Your task to perform on an android device: change the clock display to digital Image 0: 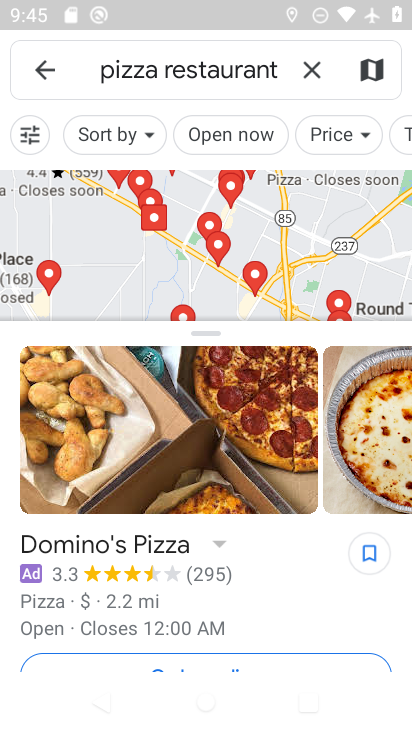
Step 0: press home button
Your task to perform on an android device: change the clock display to digital Image 1: 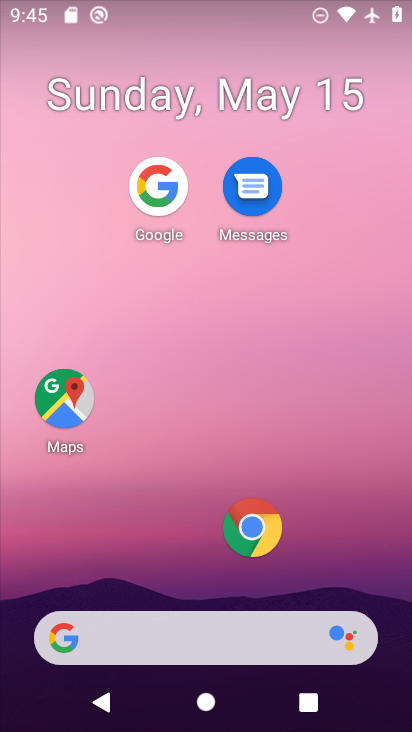
Step 1: drag from (207, 636) to (318, 217)
Your task to perform on an android device: change the clock display to digital Image 2: 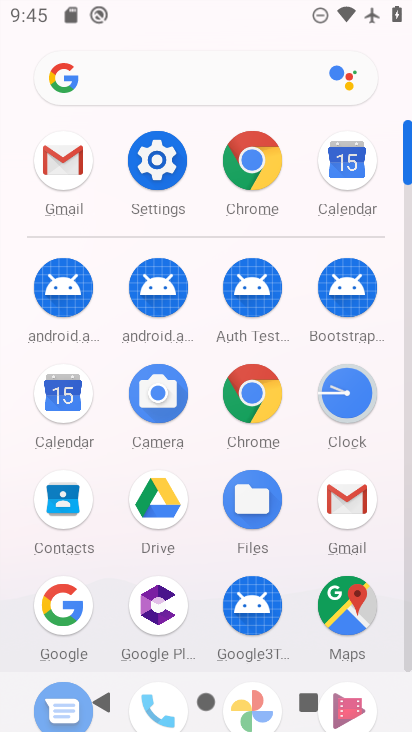
Step 2: click (344, 406)
Your task to perform on an android device: change the clock display to digital Image 3: 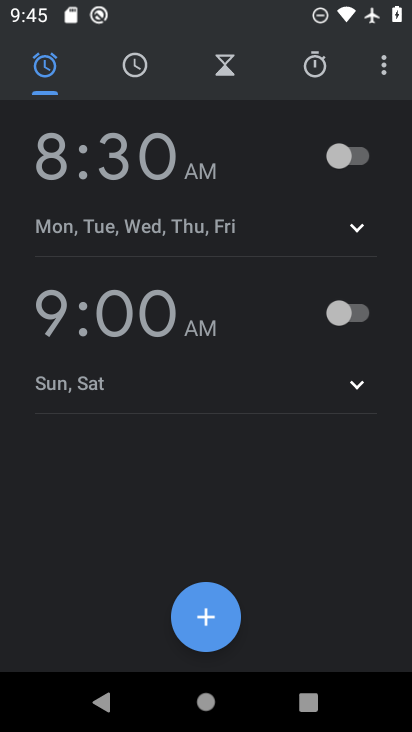
Step 3: click (379, 70)
Your task to perform on an android device: change the clock display to digital Image 4: 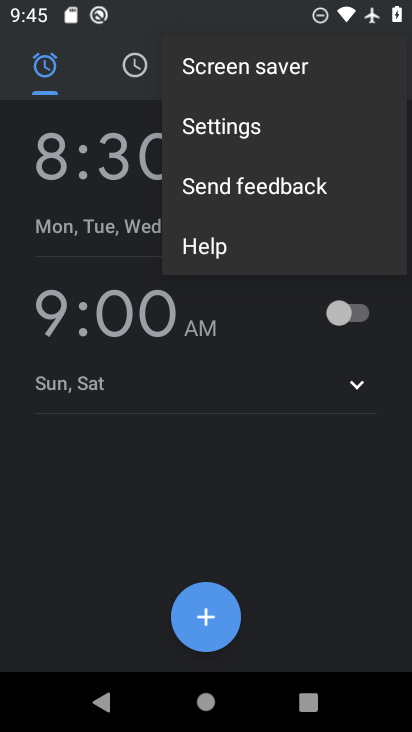
Step 4: click (233, 130)
Your task to perform on an android device: change the clock display to digital Image 5: 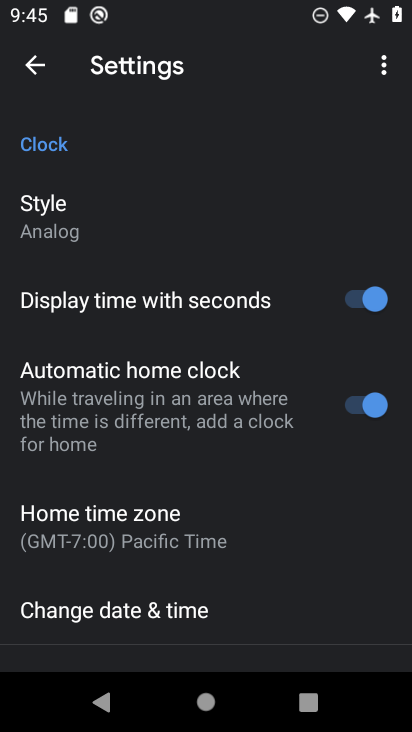
Step 5: click (58, 216)
Your task to perform on an android device: change the clock display to digital Image 6: 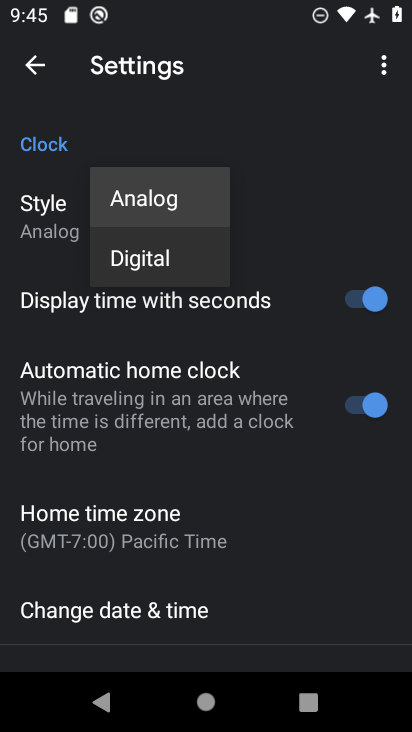
Step 6: click (146, 258)
Your task to perform on an android device: change the clock display to digital Image 7: 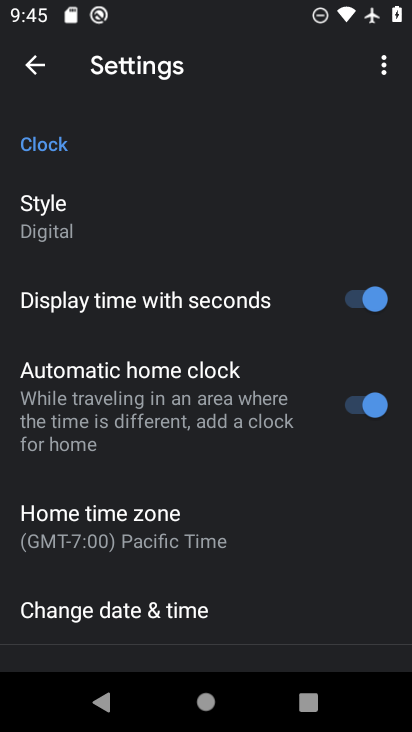
Step 7: task complete